Your task to perform on an android device: turn off wifi Image 0: 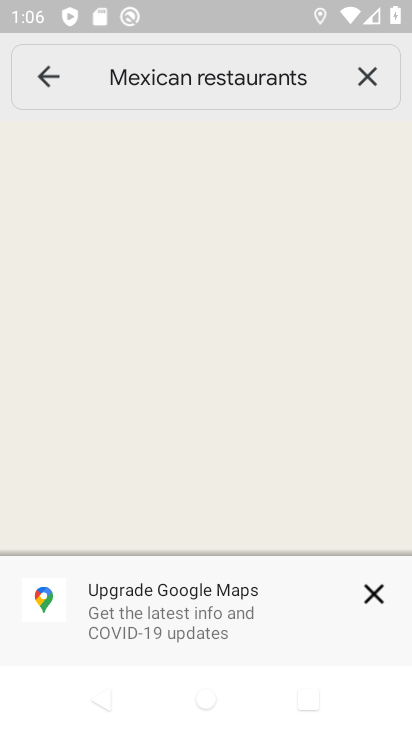
Step 0: press home button
Your task to perform on an android device: turn off wifi Image 1: 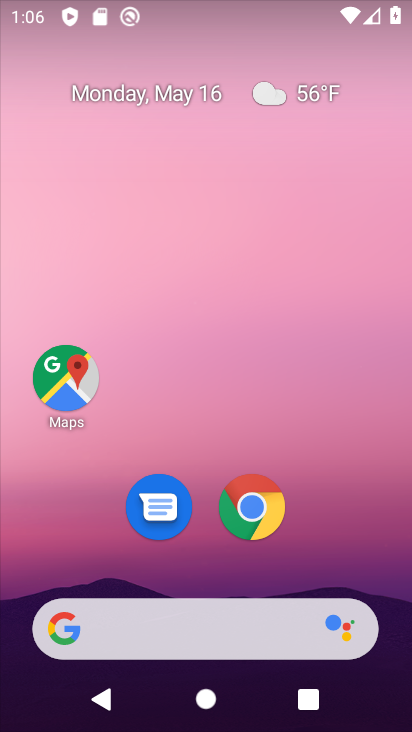
Step 1: drag from (199, 571) to (223, 155)
Your task to perform on an android device: turn off wifi Image 2: 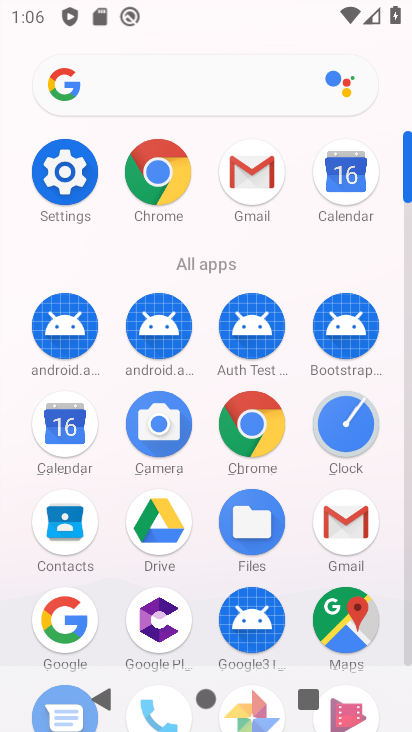
Step 2: click (87, 185)
Your task to perform on an android device: turn off wifi Image 3: 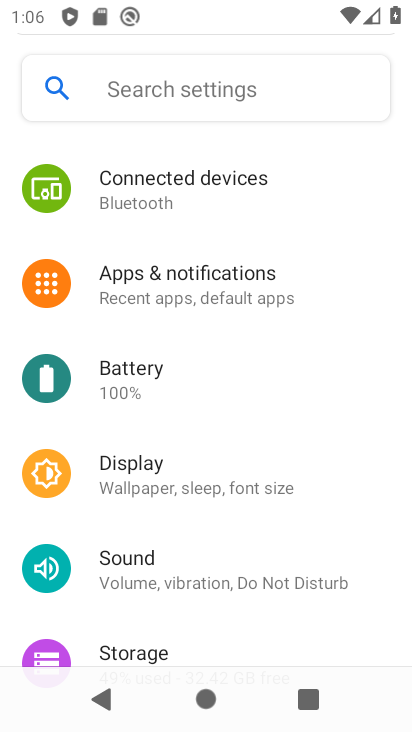
Step 3: drag from (215, 202) to (239, 447)
Your task to perform on an android device: turn off wifi Image 4: 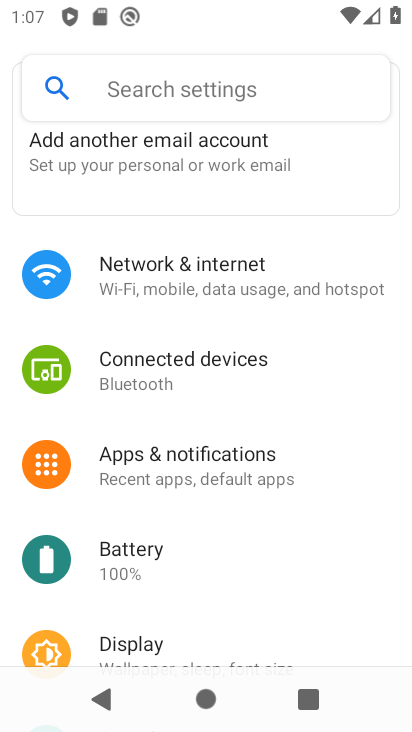
Step 4: click (215, 259)
Your task to perform on an android device: turn off wifi Image 5: 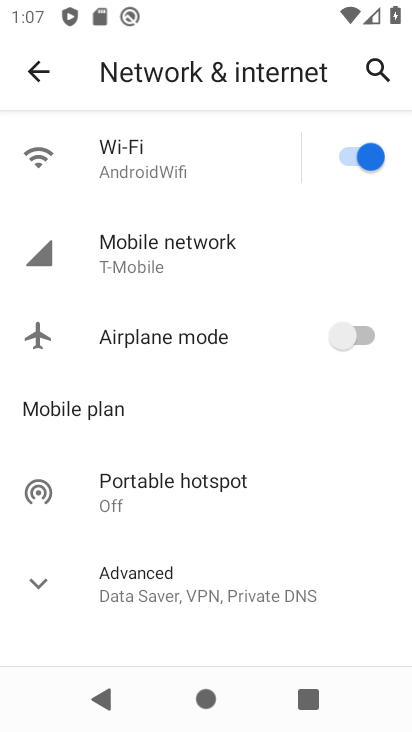
Step 5: click (355, 158)
Your task to perform on an android device: turn off wifi Image 6: 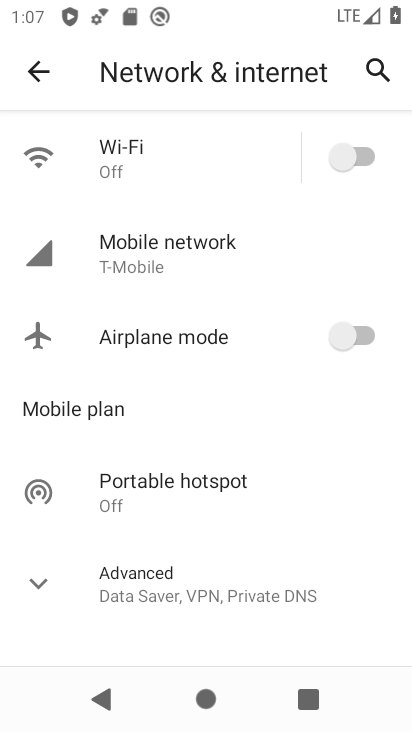
Step 6: task complete